Your task to perform on an android device: Go to display settings Image 0: 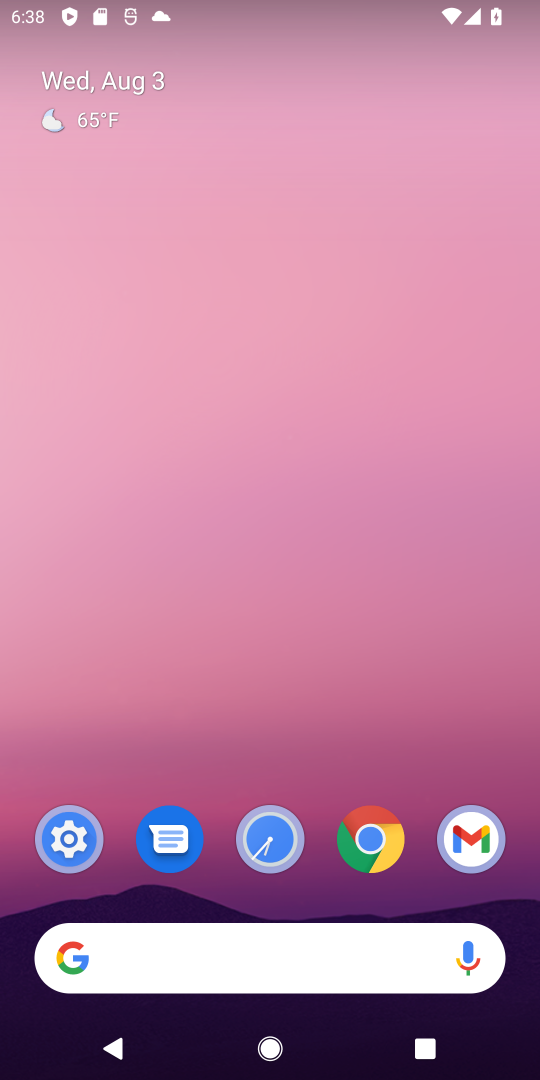
Step 0: click (38, 834)
Your task to perform on an android device: Go to display settings Image 1: 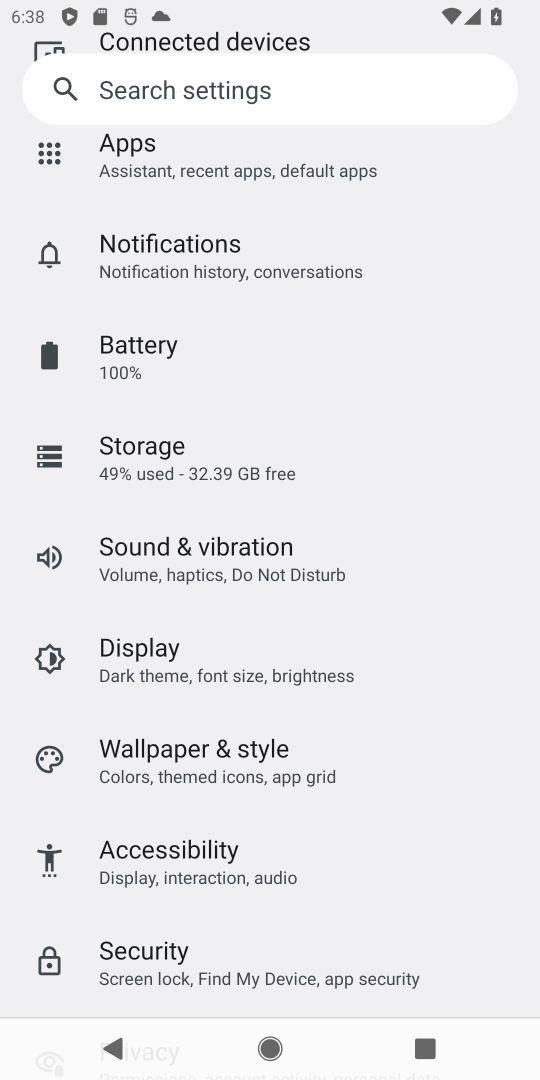
Step 1: click (221, 670)
Your task to perform on an android device: Go to display settings Image 2: 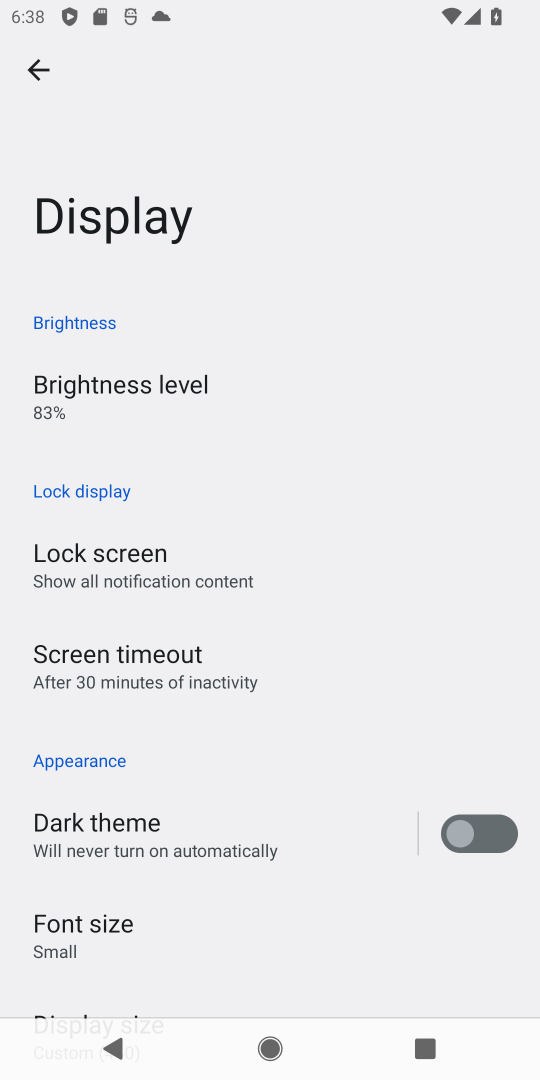
Step 2: task complete